Your task to perform on an android device: turn off translation in the chrome app Image 0: 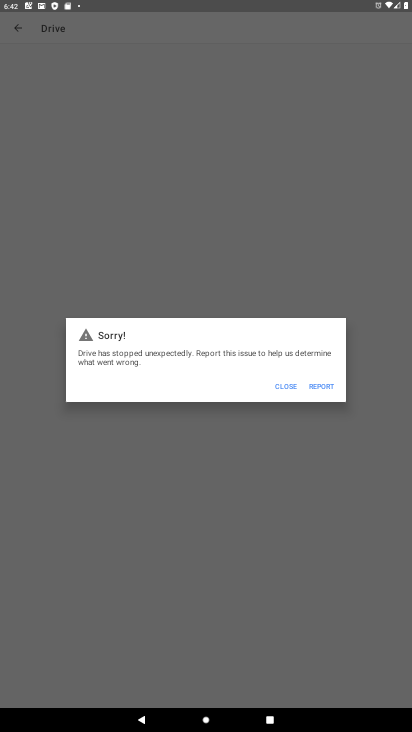
Step 0: press home button
Your task to perform on an android device: turn off translation in the chrome app Image 1: 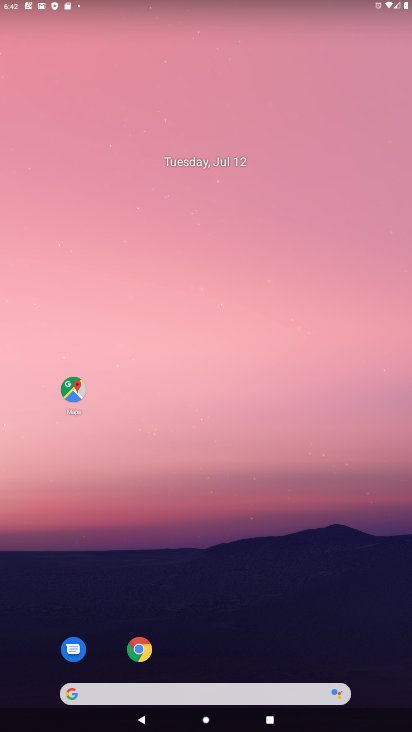
Step 1: click (139, 653)
Your task to perform on an android device: turn off translation in the chrome app Image 2: 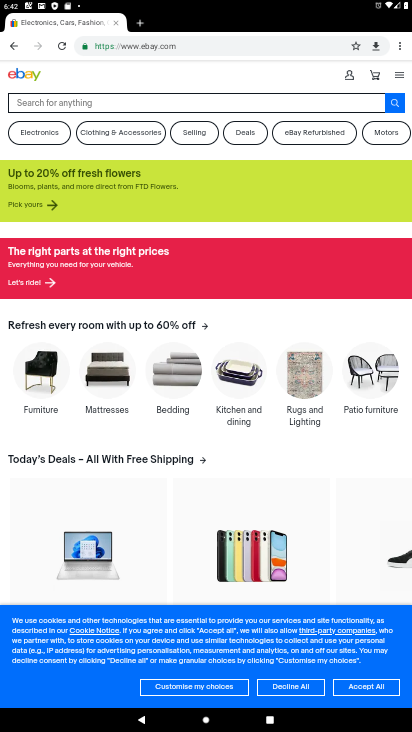
Step 2: click (401, 44)
Your task to perform on an android device: turn off translation in the chrome app Image 3: 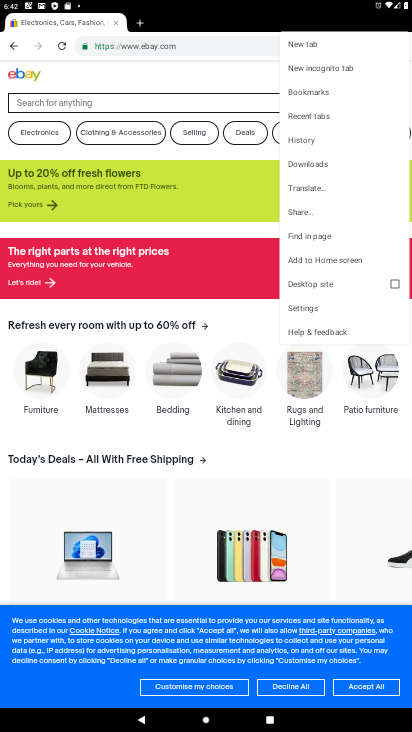
Step 3: click (304, 305)
Your task to perform on an android device: turn off translation in the chrome app Image 4: 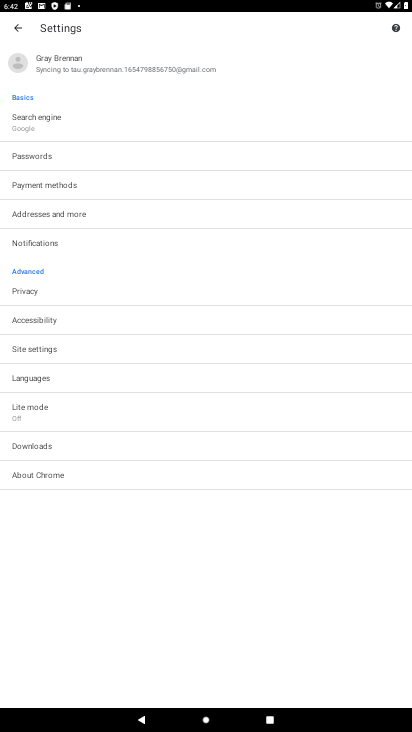
Step 4: click (45, 381)
Your task to perform on an android device: turn off translation in the chrome app Image 5: 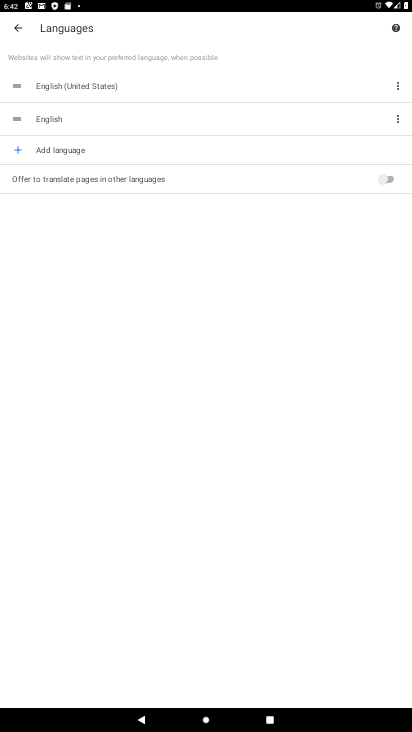
Step 5: task complete